Your task to perform on an android device: find snoozed emails in the gmail app Image 0: 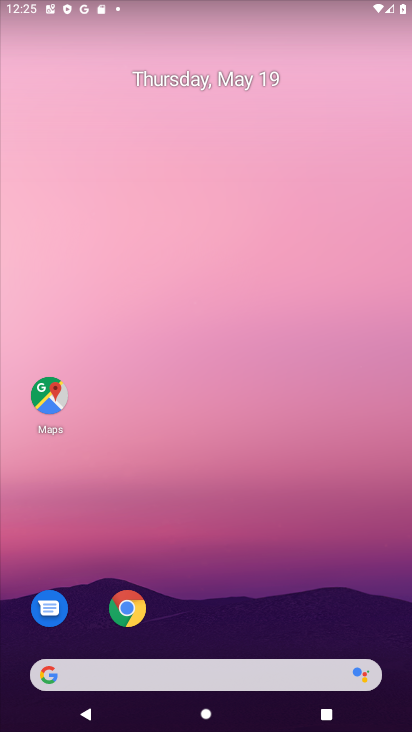
Step 0: click (213, 224)
Your task to perform on an android device: find snoozed emails in the gmail app Image 1: 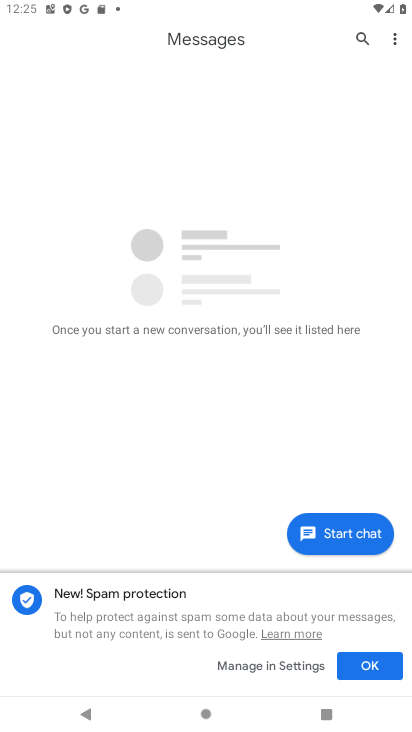
Step 1: press home button
Your task to perform on an android device: find snoozed emails in the gmail app Image 2: 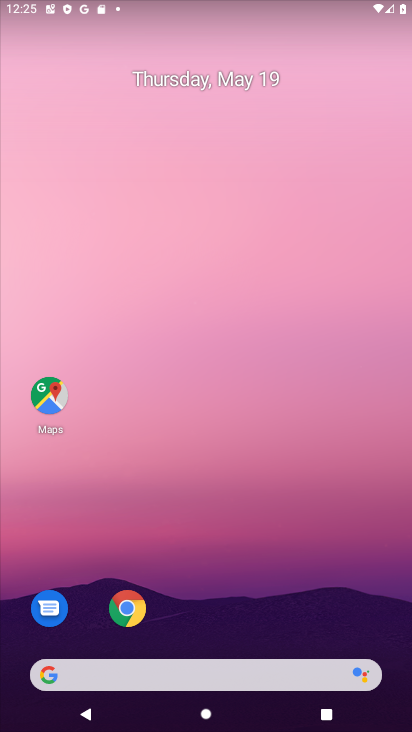
Step 2: drag from (224, 552) to (235, 173)
Your task to perform on an android device: find snoozed emails in the gmail app Image 3: 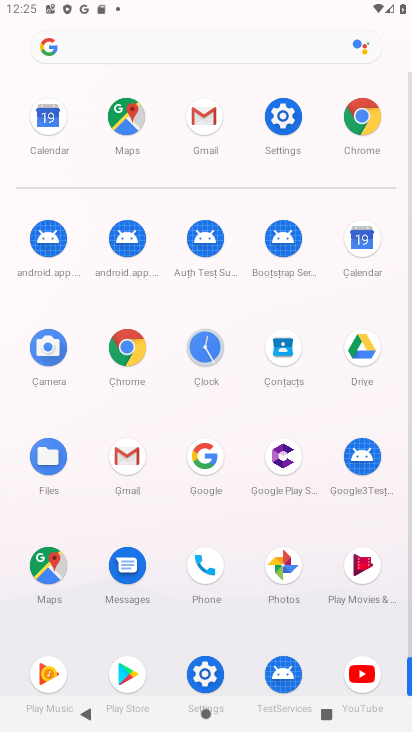
Step 3: click (200, 110)
Your task to perform on an android device: find snoozed emails in the gmail app Image 4: 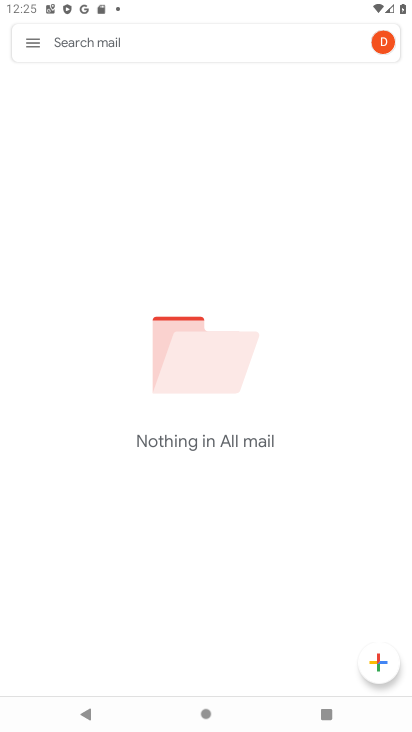
Step 4: click (28, 43)
Your task to perform on an android device: find snoozed emails in the gmail app Image 5: 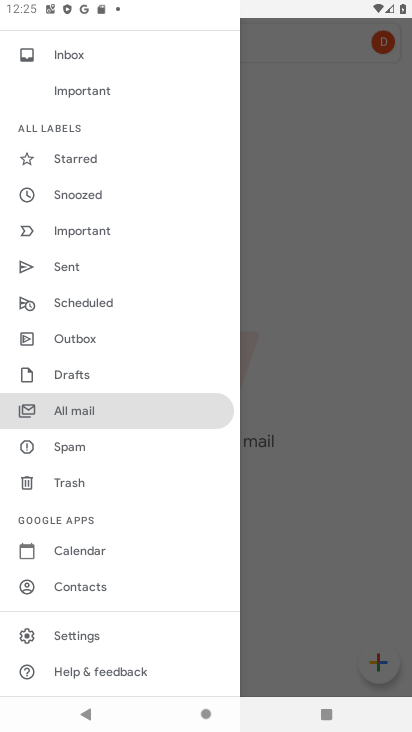
Step 5: click (84, 185)
Your task to perform on an android device: find snoozed emails in the gmail app Image 6: 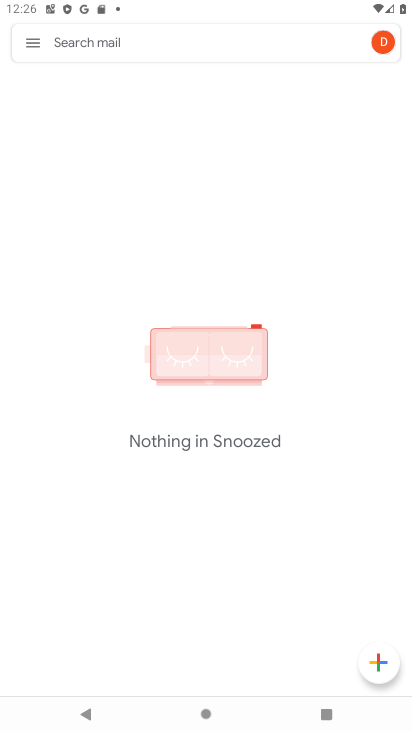
Step 6: task complete